Your task to perform on an android device: toggle data saver in the chrome app Image 0: 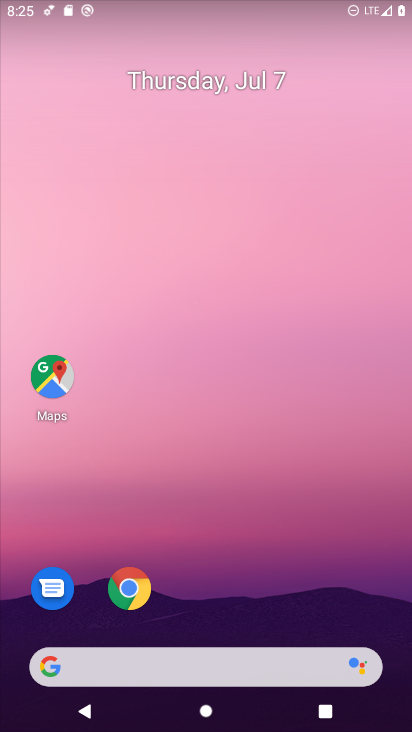
Step 0: drag from (194, 264) to (199, 158)
Your task to perform on an android device: toggle data saver in the chrome app Image 1: 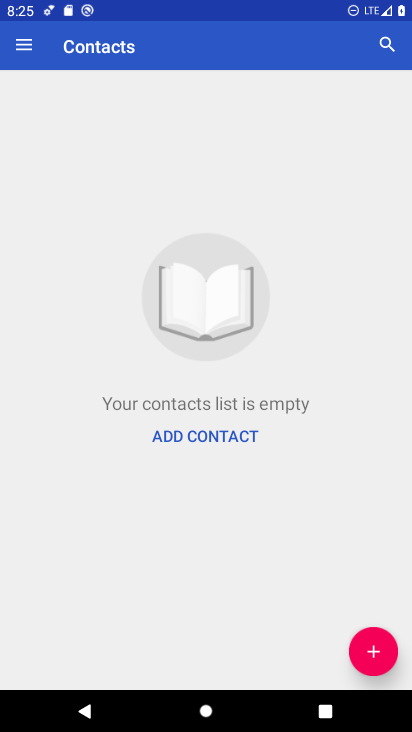
Step 1: press home button
Your task to perform on an android device: toggle data saver in the chrome app Image 2: 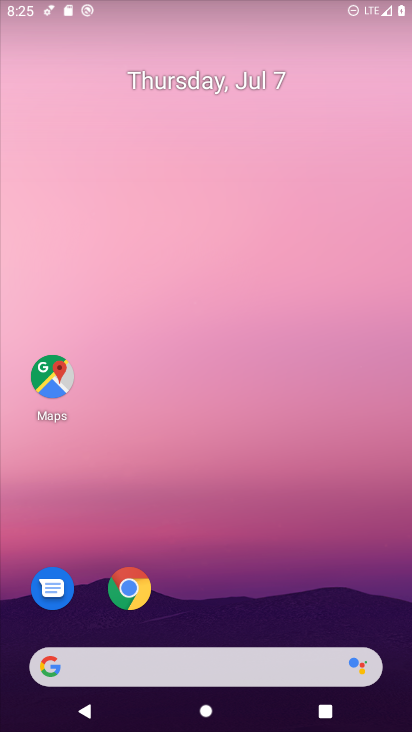
Step 2: drag from (306, 581) to (292, 159)
Your task to perform on an android device: toggle data saver in the chrome app Image 3: 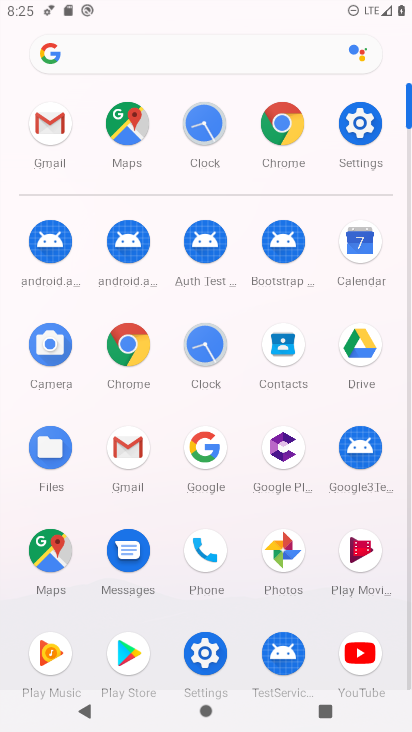
Step 3: click (136, 340)
Your task to perform on an android device: toggle data saver in the chrome app Image 4: 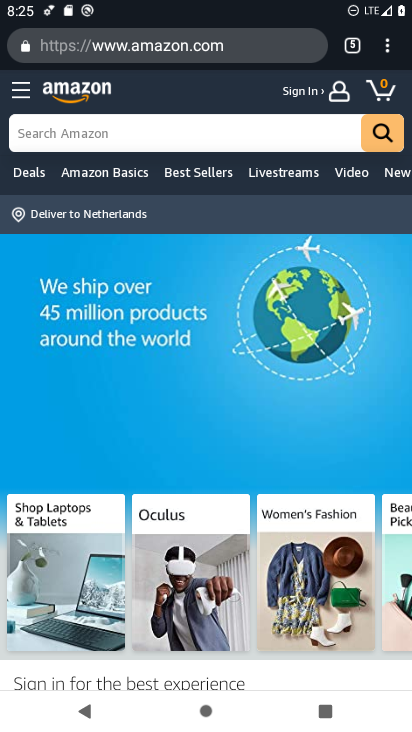
Step 4: click (386, 56)
Your task to perform on an android device: toggle data saver in the chrome app Image 5: 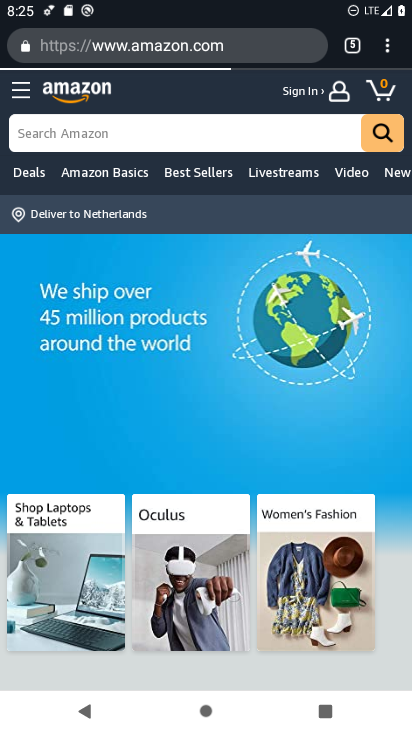
Step 5: click (388, 56)
Your task to perform on an android device: toggle data saver in the chrome app Image 6: 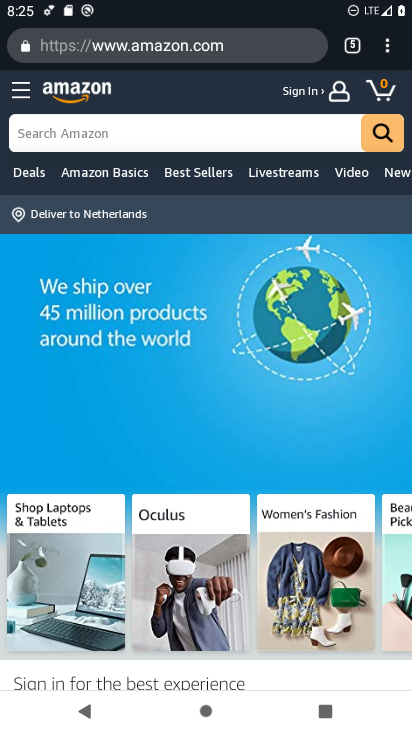
Step 6: click (389, 50)
Your task to perform on an android device: toggle data saver in the chrome app Image 7: 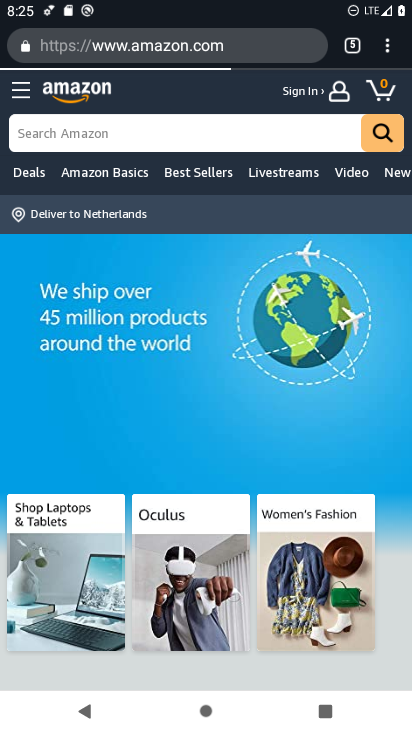
Step 7: click (389, 50)
Your task to perform on an android device: toggle data saver in the chrome app Image 8: 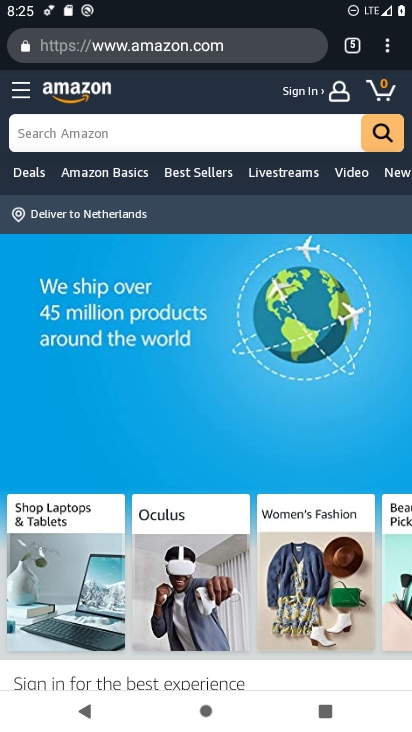
Step 8: click (402, 37)
Your task to perform on an android device: toggle data saver in the chrome app Image 9: 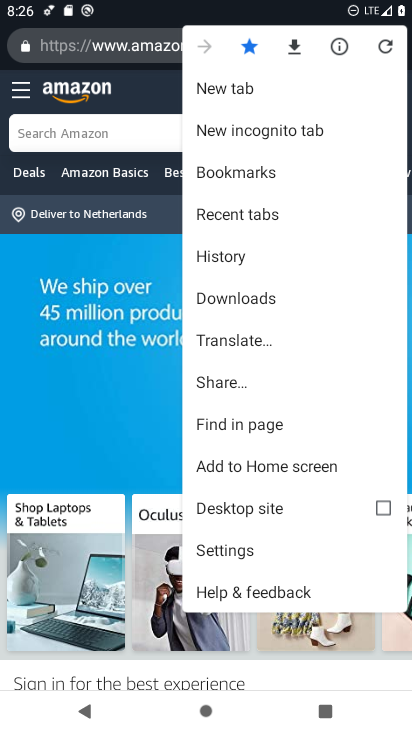
Step 9: click (244, 553)
Your task to perform on an android device: toggle data saver in the chrome app Image 10: 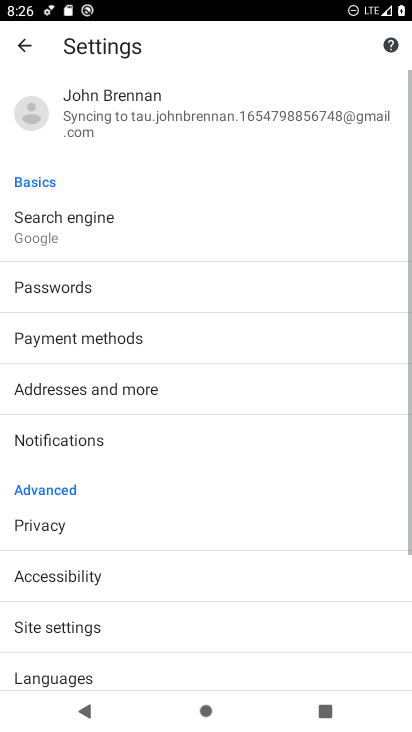
Step 10: drag from (185, 546) to (225, 209)
Your task to perform on an android device: toggle data saver in the chrome app Image 11: 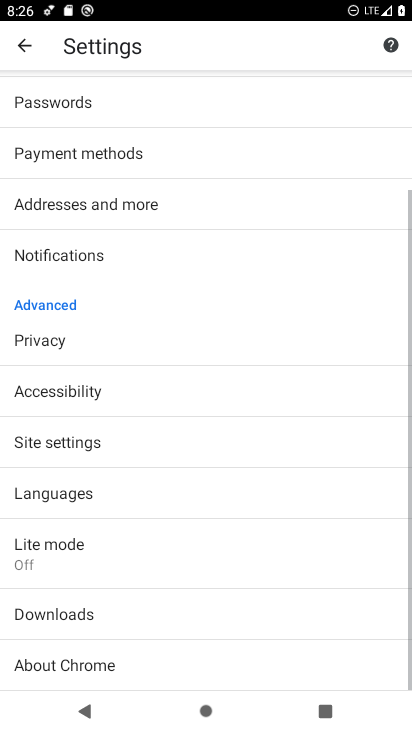
Step 11: drag from (145, 603) to (169, 506)
Your task to perform on an android device: toggle data saver in the chrome app Image 12: 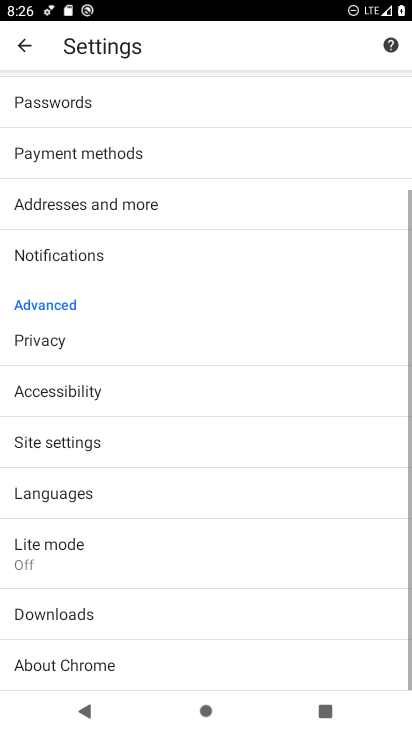
Step 12: click (150, 549)
Your task to perform on an android device: toggle data saver in the chrome app Image 13: 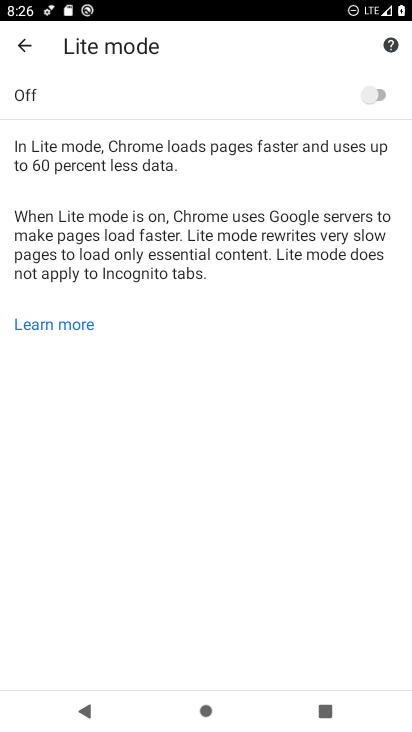
Step 13: click (357, 93)
Your task to perform on an android device: toggle data saver in the chrome app Image 14: 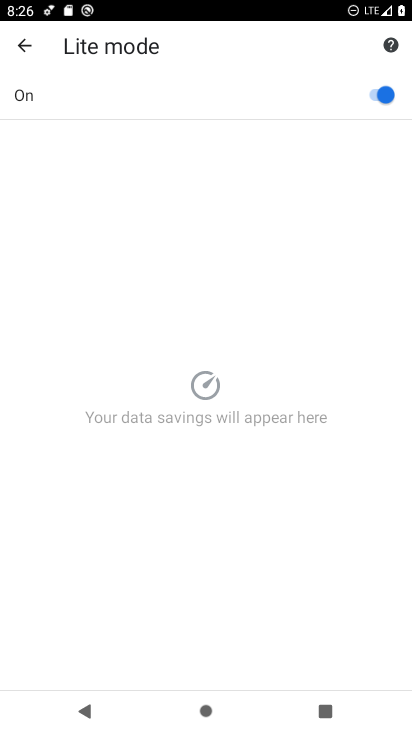
Step 14: task complete